Your task to perform on an android device: Show me popular videos on Youtube Image 0: 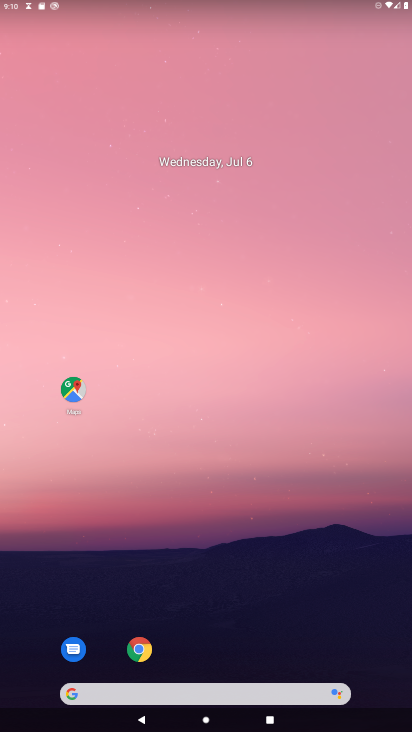
Step 0: drag from (380, 656) to (212, 305)
Your task to perform on an android device: Show me popular videos on Youtube Image 1: 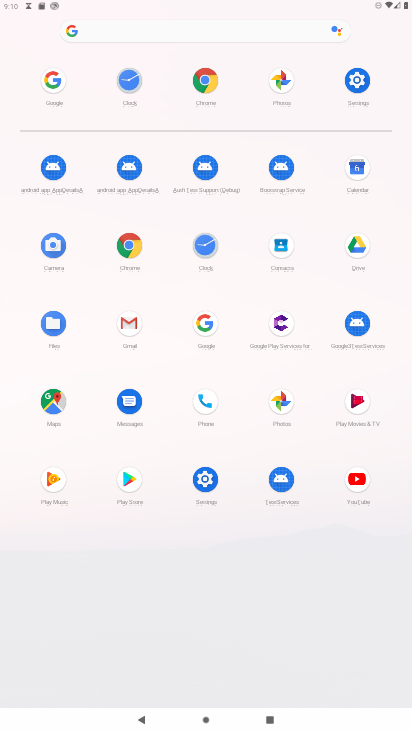
Step 1: click (359, 487)
Your task to perform on an android device: Show me popular videos on Youtube Image 2: 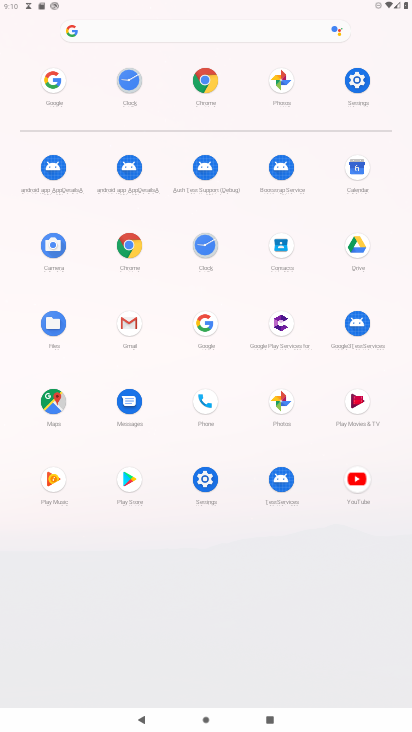
Step 2: click (359, 487)
Your task to perform on an android device: Show me popular videos on Youtube Image 3: 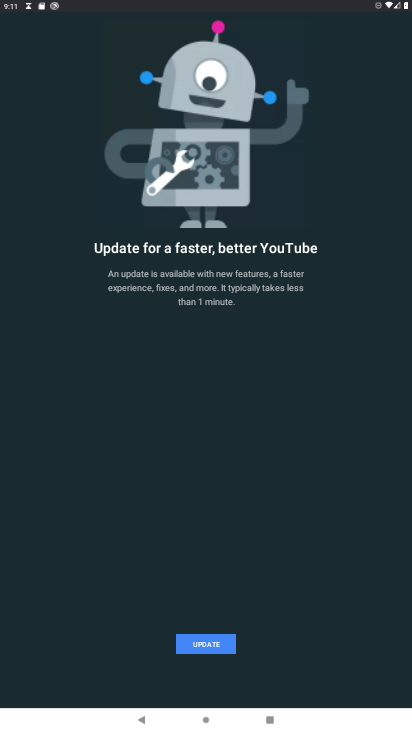
Step 3: press back button
Your task to perform on an android device: Show me popular videos on Youtube Image 4: 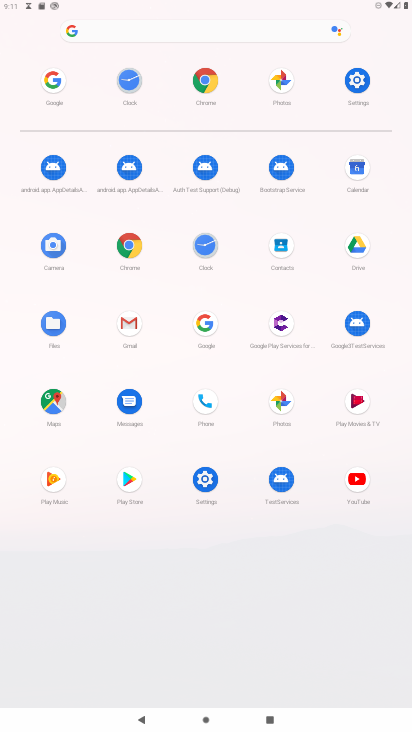
Step 4: click (355, 481)
Your task to perform on an android device: Show me popular videos on Youtube Image 5: 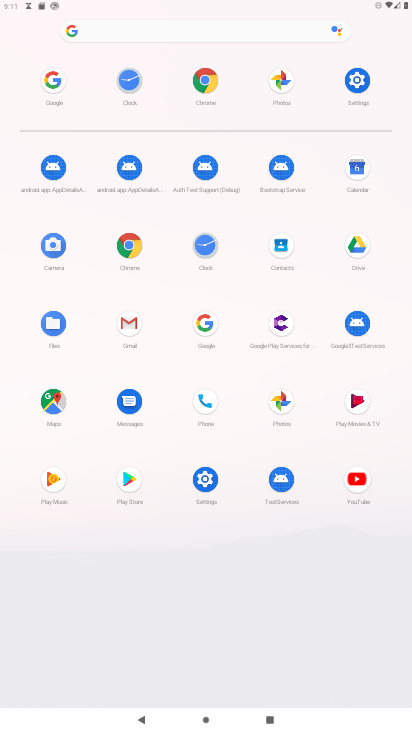
Step 5: click (358, 482)
Your task to perform on an android device: Show me popular videos on Youtube Image 6: 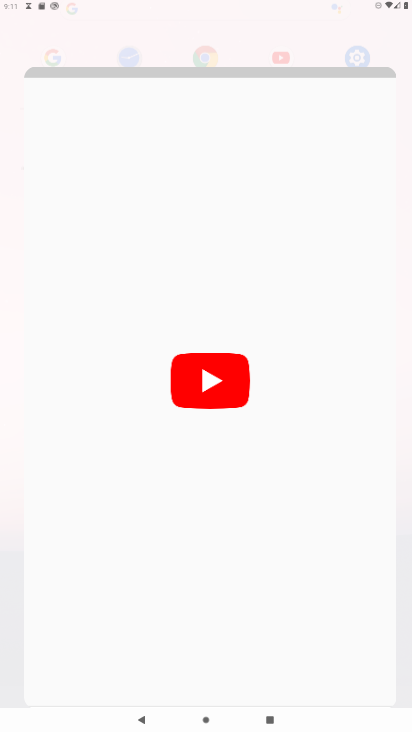
Step 6: click (360, 482)
Your task to perform on an android device: Show me popular videos on Youtube Image 7: 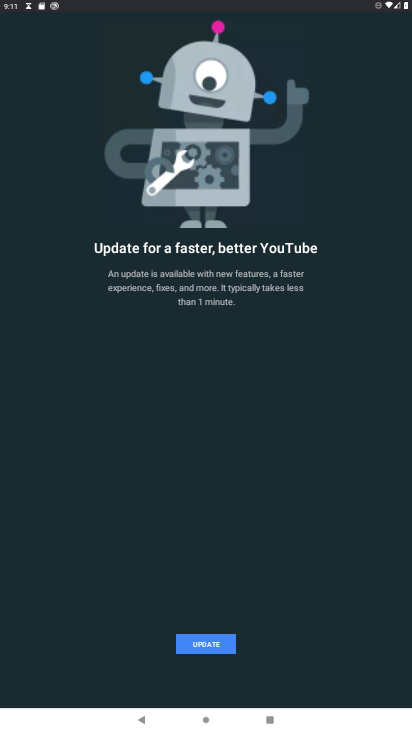
Step 7: press back button
Your task to perform on an android device: Show me popular videos on Youtube Image 8: 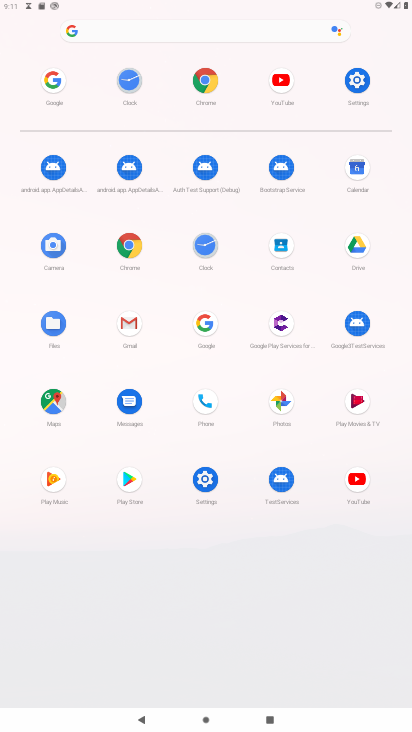
Step 8: click (357, 478)
Your task to perform on an android device: Show me popular videos on Youtube Image 9: 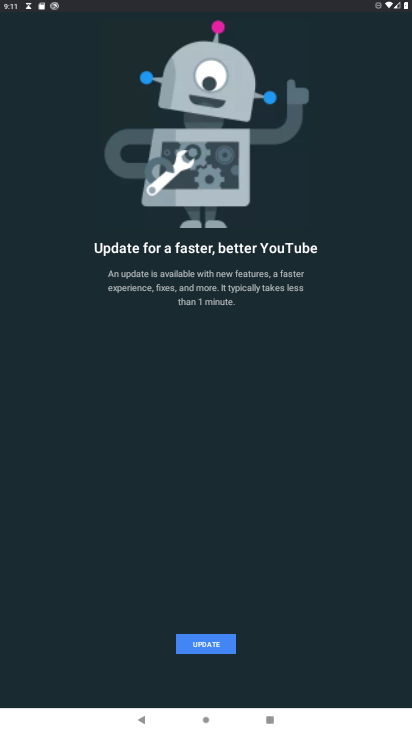
Step 9: click (217, 643)
Your task to perform on an android device: Show me popular videos on Youtube Image 10: 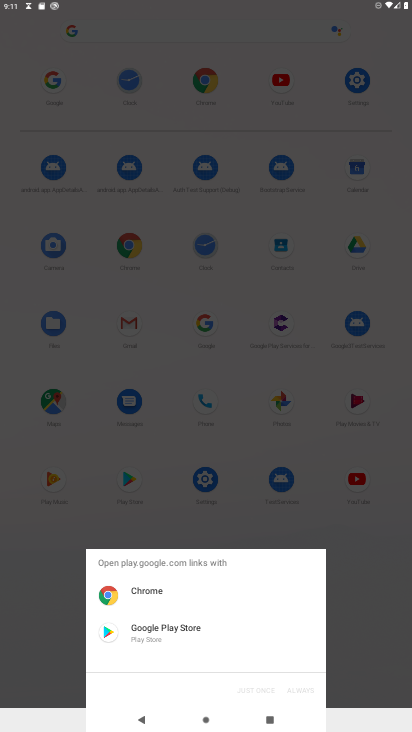
Step 10: click (215, 641)
Your task to perform on an android device: Show me popular videos on Youtube Image 11: 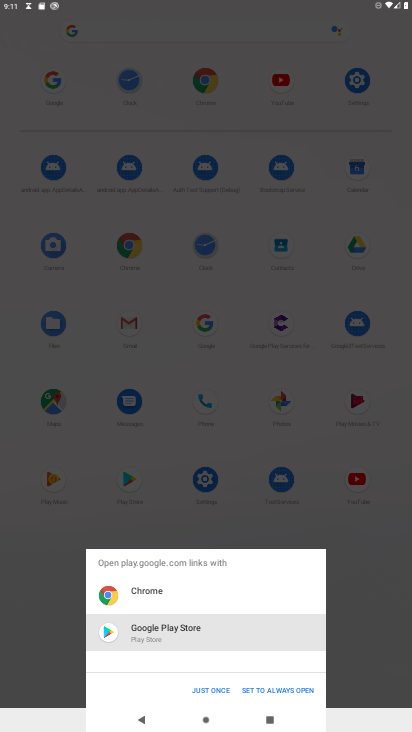
Step 11: click (156, 583)
Your task to perform on an android device: Show me popular videos on Youtube Image 12: 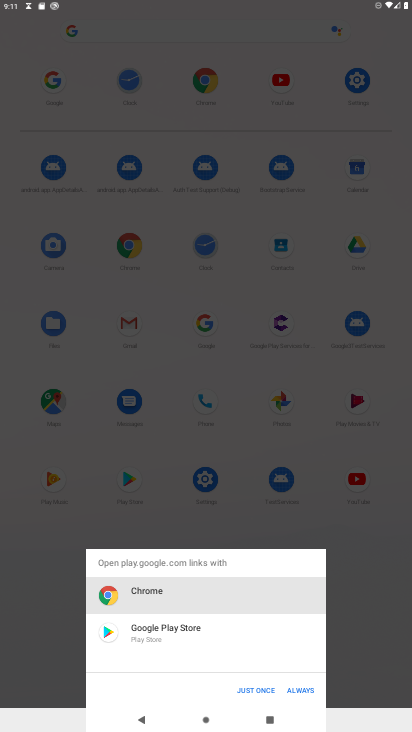
Step 12: click (156, 583)
Your task to perform on an android device: Show me popular videos on Youtube Image 13: 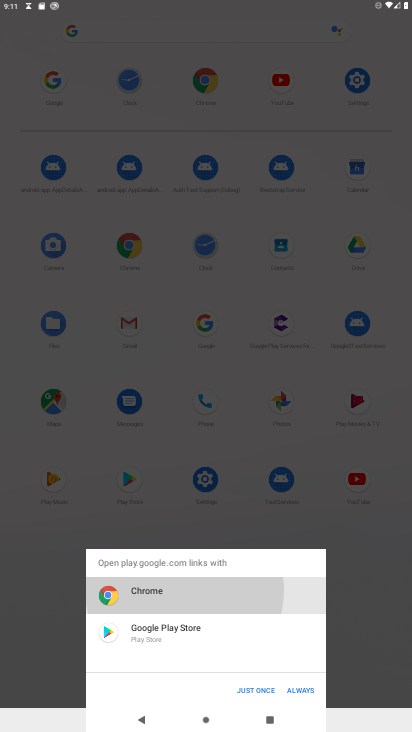
Step 13: click (156, 583)
Your task to perform on an android device: Show me popular videos on Youtube Image 14: 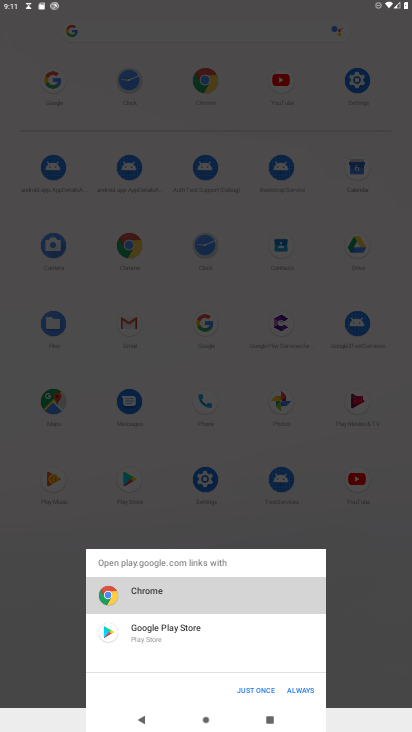
Step 14: click (156, 583)
Your task to perform on an android device: Show me popular videos on Youtube Image 15: 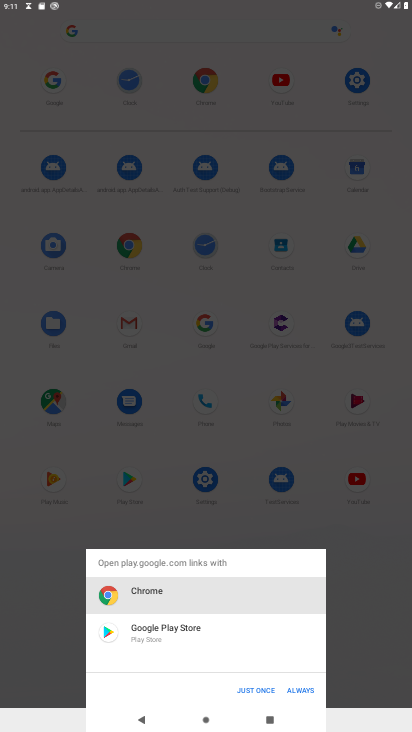
Step 15: click (157, 584)
Your task to perform on an android device: Show me popular videos on Youtube Image 16: 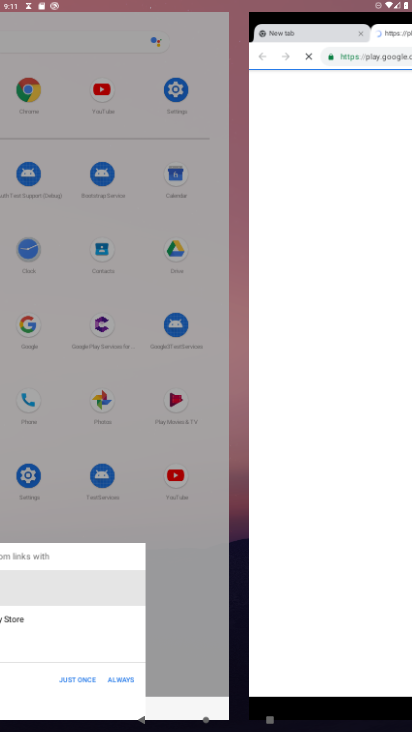
Step 16: click (265, 691)
Your task to perform on an android device: Show me popular videos on Youtube Image 17: 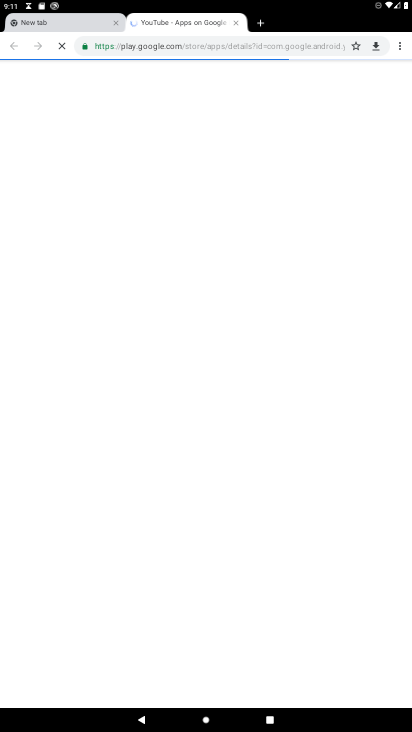
Step 17: click (264, 691)
Your task to perform on an android device: Show me popular videos on Youtube Image 18: 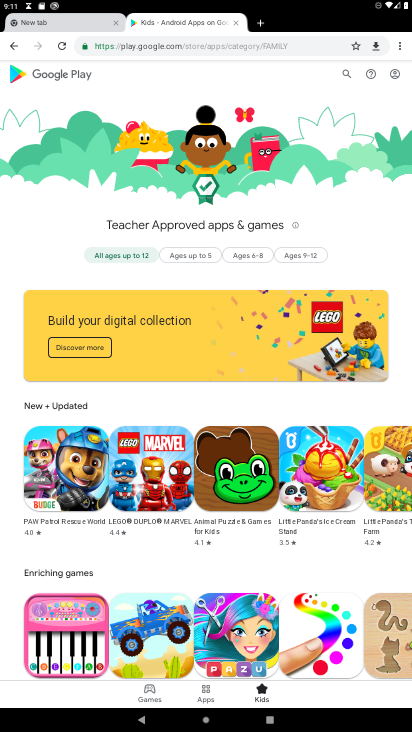
Step 18: drag from (225, 553) to (196, 333)
Your task to perform on an android device: Show me popular videos on Youtube Image 19: 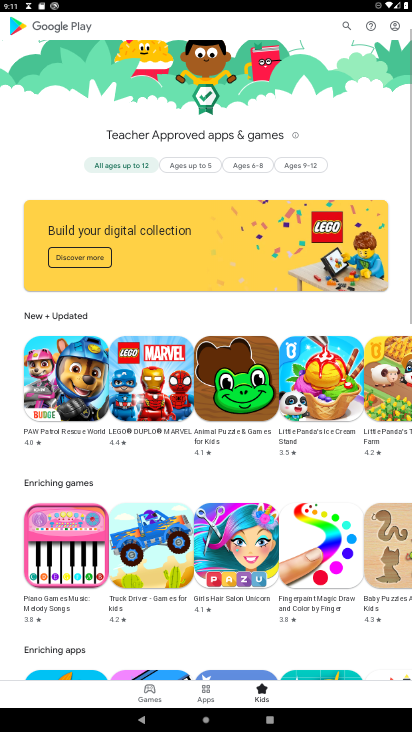
Step 19: drag from (254, 558) to (228, 296)
Your task to perform on an android device: Show me popular videos on Youtube Image 20: 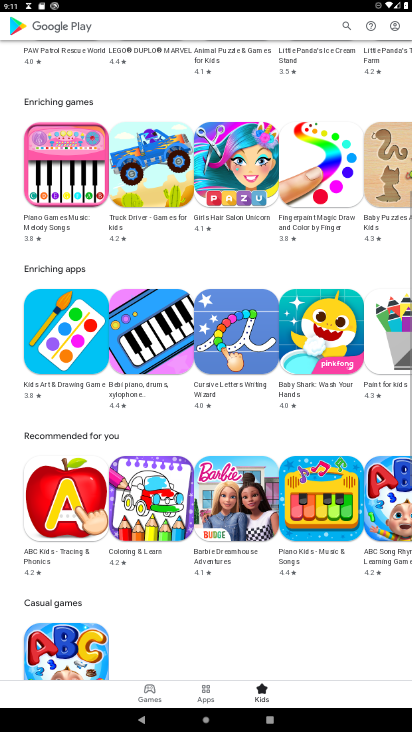
Step 20: drag from (262, 451) to (216, 297)
Your task to perform on an android device: Show me popular videos on Youtube Image 21: 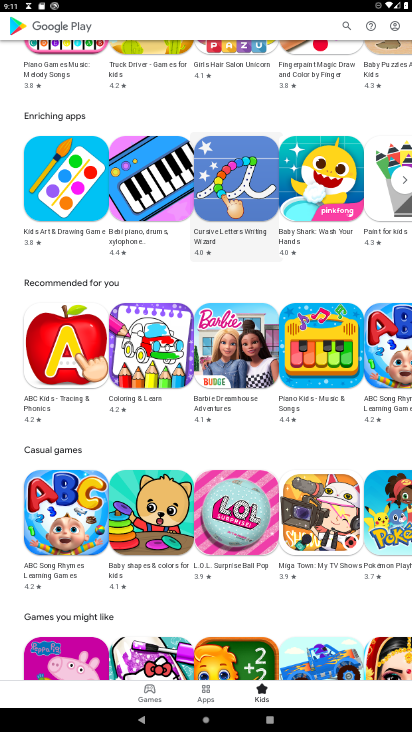
Step 21: click (150, 369)
Your task to perform on an android device: Show me popular videos on Youtube Image 22: 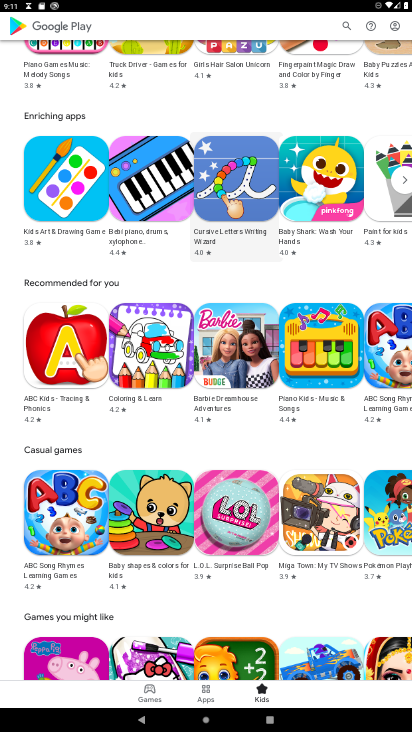
Step 22: click (147, 367)
Your task to perform on an android device: Show me popular videos on Youtube Image 23: 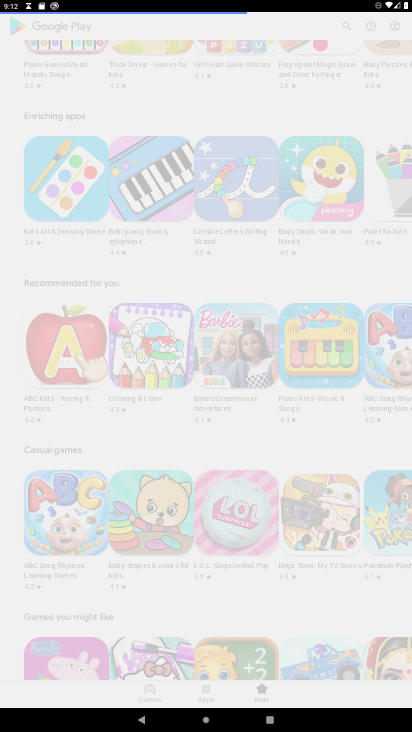
Step 23: task complete